Your task to perform on an android device: uninstall "PlayWell" Image 0: 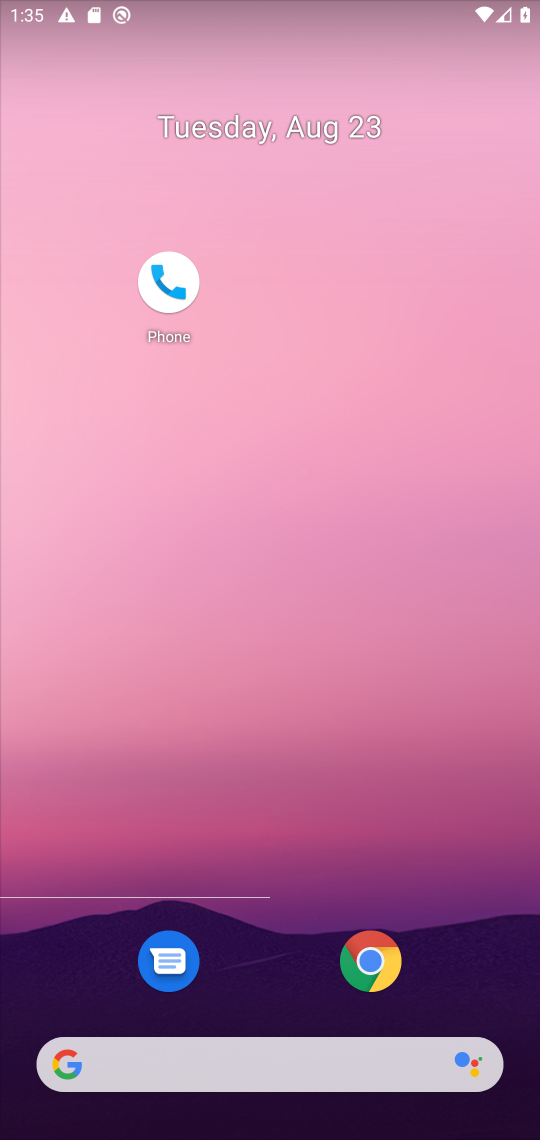
Step 0: task complete